Your task to perform on an android device: set an alarm Image 0: 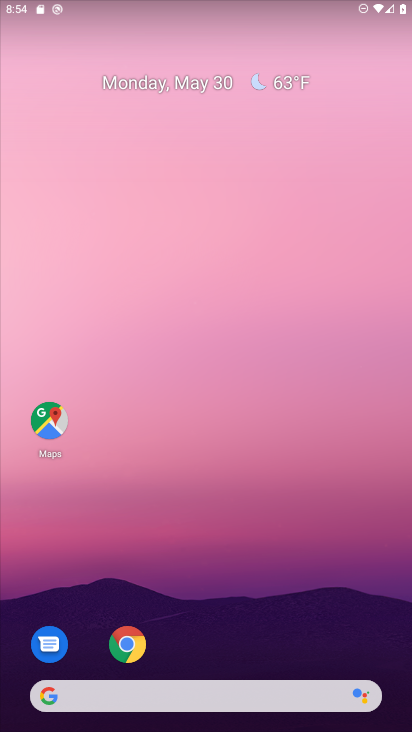
Step 0: drag from (200, 646) to (237, 82)
Your task to perform on an android device: set an alarm Image 1: 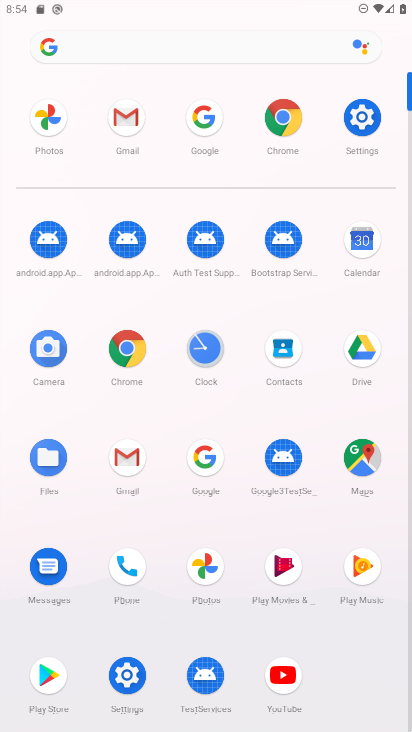
Step 1: click (204, 353)
Your task to perform on an android device: set an alarm Image 2: 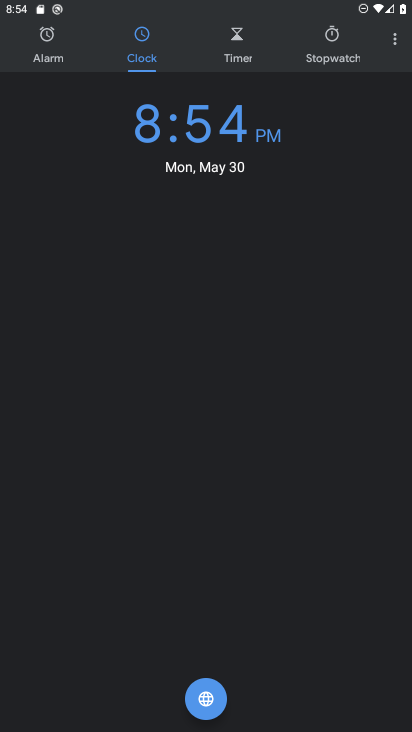
Step 2: click (53, 48)
Your task to perform on an android device: set an alarm Image 3: 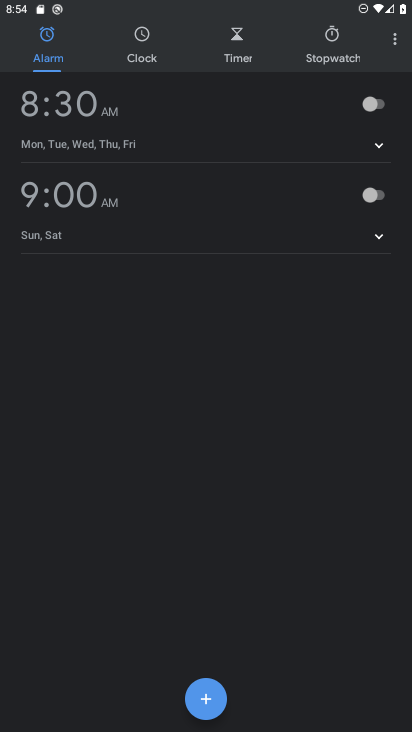
Step 3: click (378, 105)
Your task to perform on an android device: set an alarm Image 4: 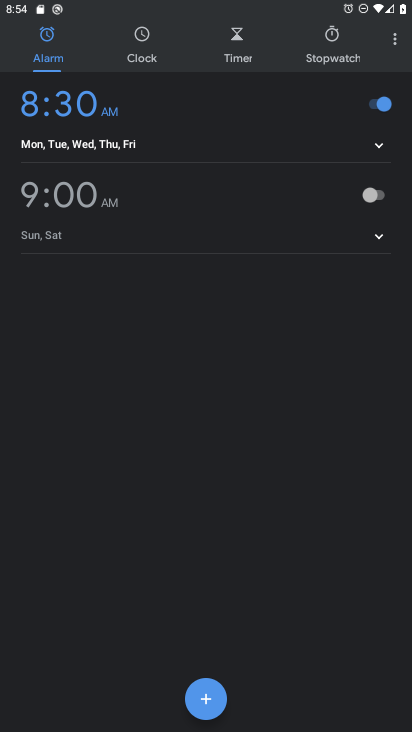
Step 4: task complete